Your task to perform on an android device: Turn on the flashlight Image 0: 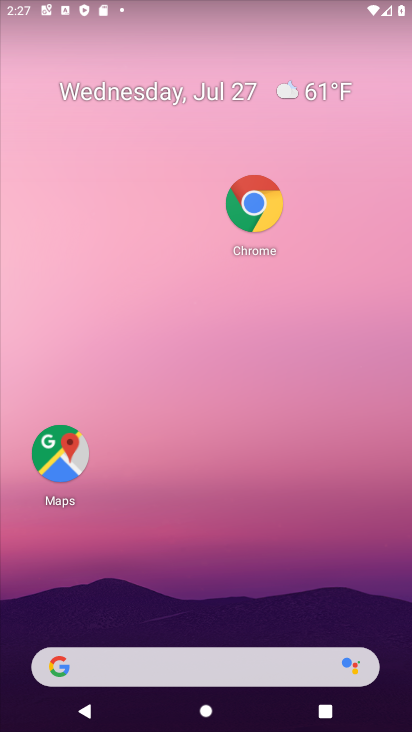
Step 0: drag from (203, 606) to (257, 93)
Your task to perform on an android device: Turn on the flashlight Image 1: 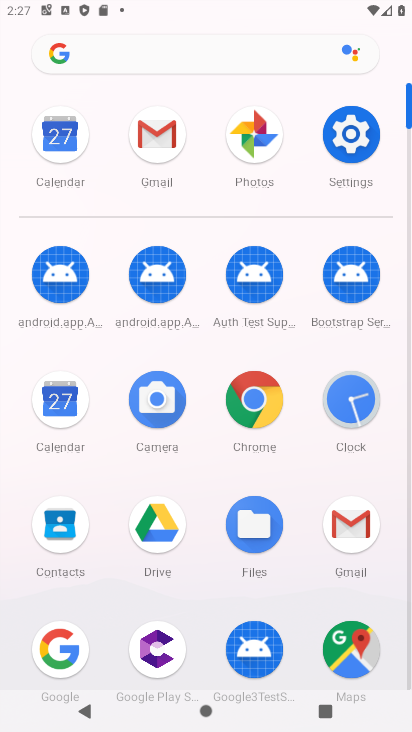
Step 1: click (315, 135)
Your task to perform on an android device: Turn on the flashlight Image 2: 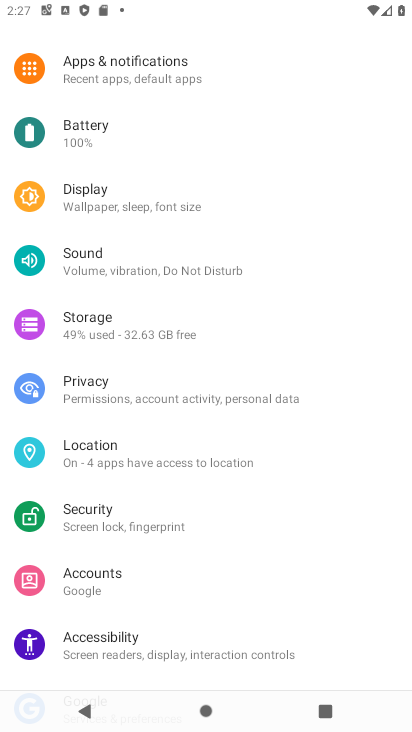
Step 2: task complete